Your task to perform on an android device: Show me popular games on the Play Store Image 0: 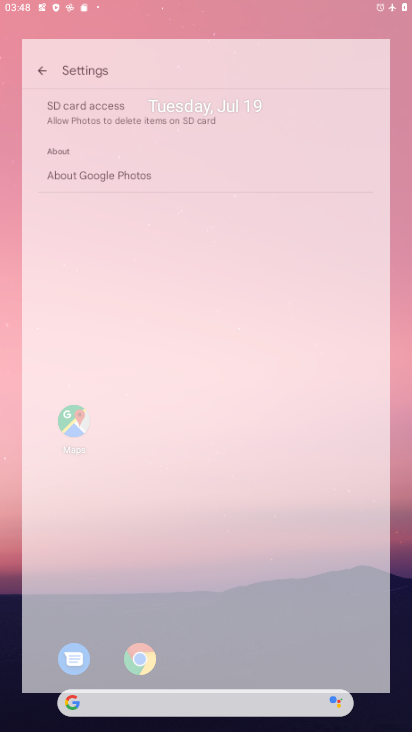
Step 0: press home button
Your task to perform on an android device: Show me popular games on the Play Store Image 1: 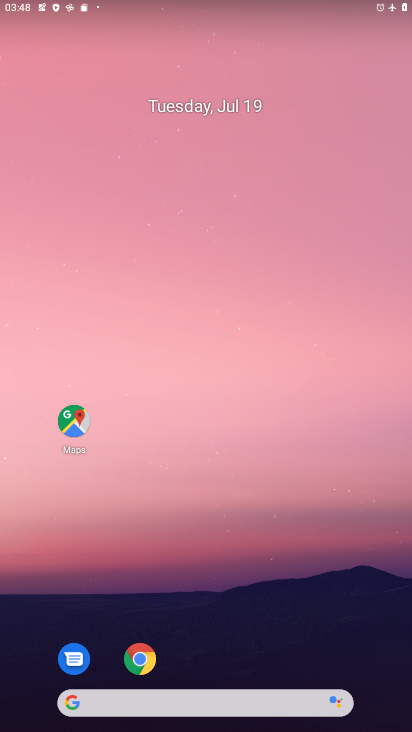
Step 1: drag from (271, 639) to (217, 46)
Your task to perform on an android device: Show me popular games on the Play Store Image 2: 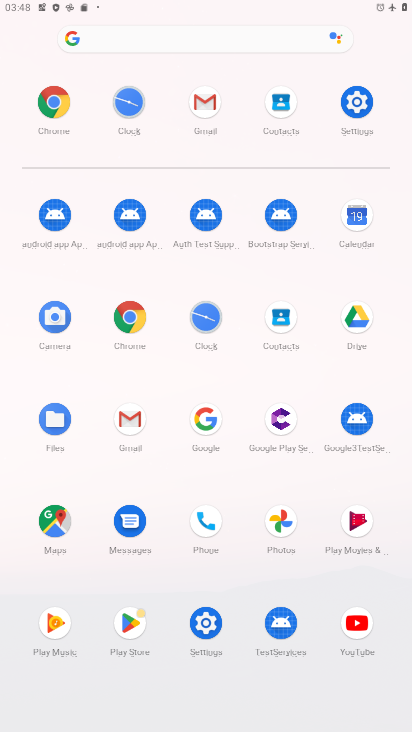
Step 2: click (124, 628)
Your task to perform on an android device: Show me popular games on the Play Store Image 3: 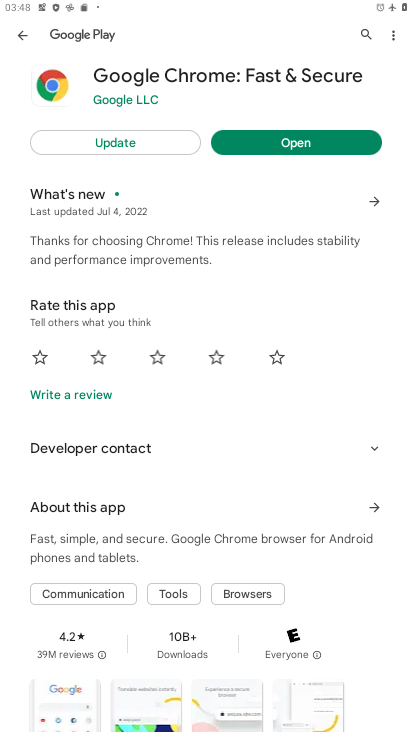
Step 3: click (361, 35)
Your task to perform on an android device: Show me popular games on the Play Store Image 4: 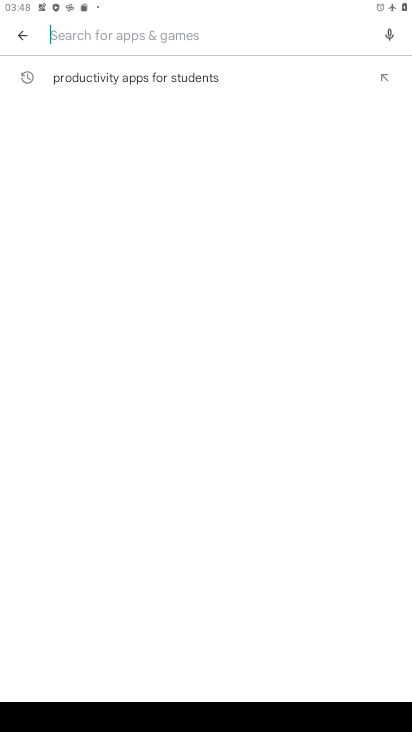
Step 4: type " popular games"
Your task to perform on an android device: Show me popular games on the Play Store Image 5: 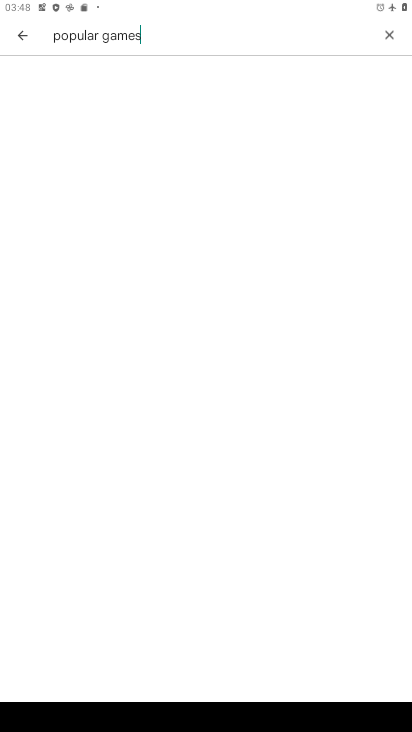
Step 5: type ""
Your task to perform on an android device: Show me popular games on the Play Store Image 6: 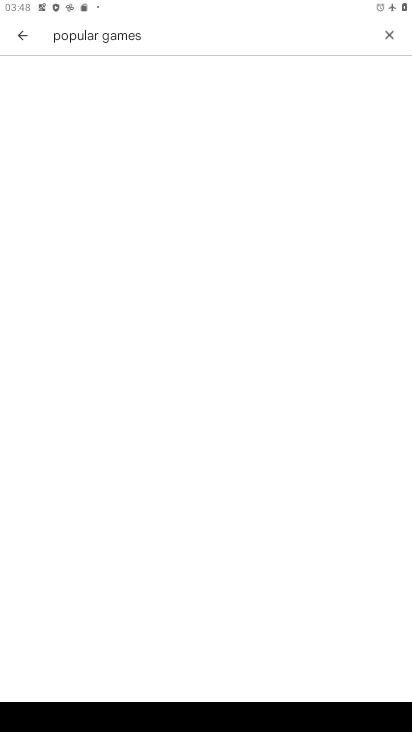
Step 6: click (94, 44)
Your task to perform on an android device: Show me popular games on the Play Store Image 7: 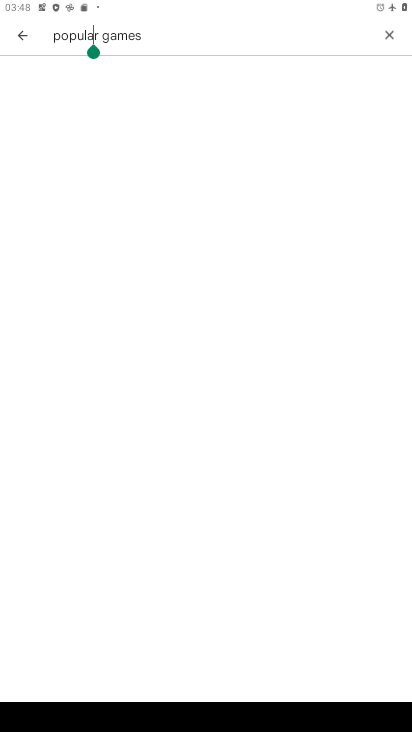
Step 7: click (94, 44)
Your task to perform on an android device: Show me popular games on the Play Store Image 8: 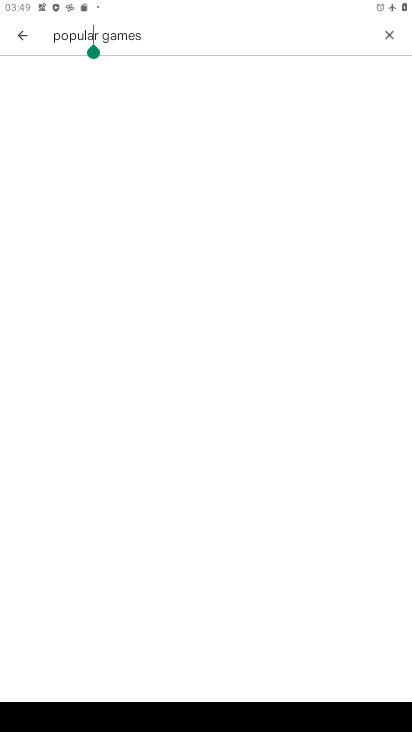
Step 8: click (374, 37)
Your task to perform on an android device: Show me popular games on the Play Store Image 9: 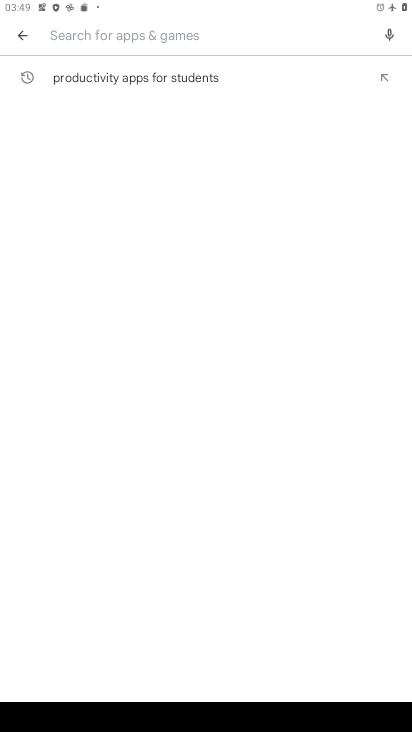
Step 9: click (338, 5)
Your task to perform on an android device: Show me popular games on the Play Store Image 10: 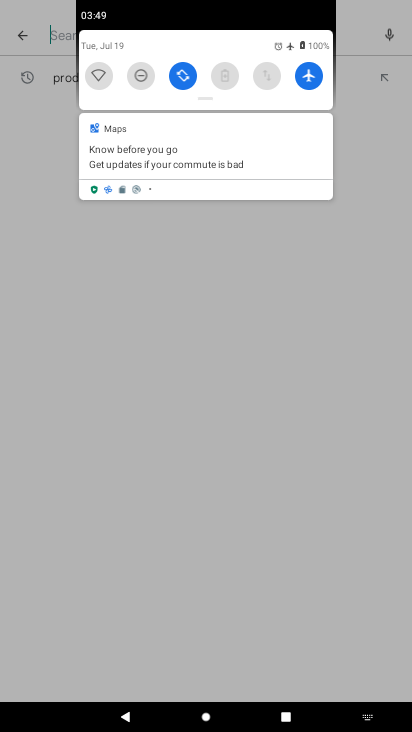
Step 10: drag from (338, 4) to (346, 253)
Your task to perform on an android device: Show me popular games on the Play Store Image 11: 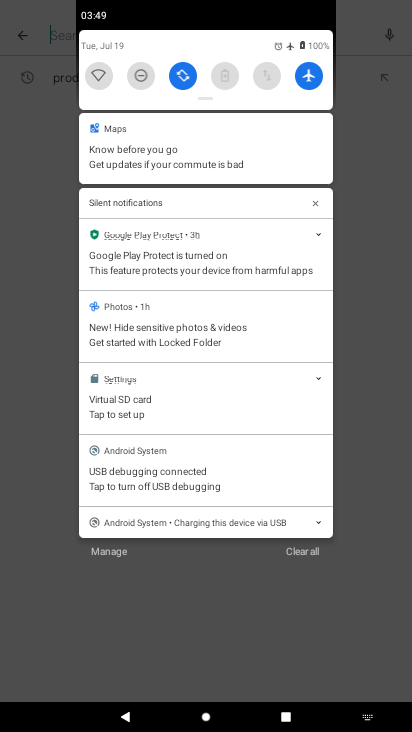
Step 11: click (310, 91)
Your task to perform on an android device: Show me popular games on the Play Store Image 12: 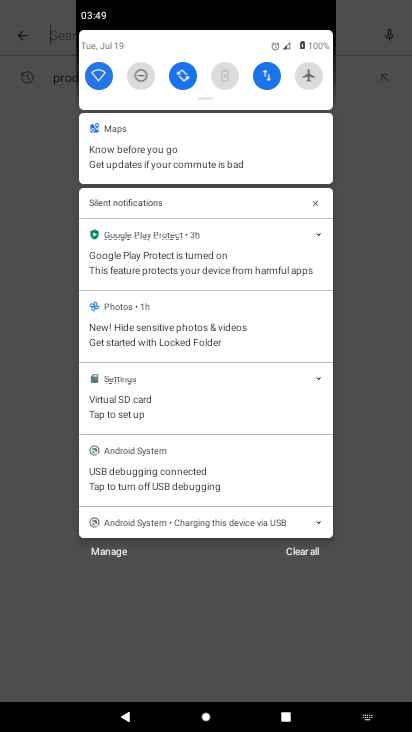
Step 12: drag from (307, 652) to (262, 18)
Your task to perform on an android device: Show me popular games on the Play Store Image 13: 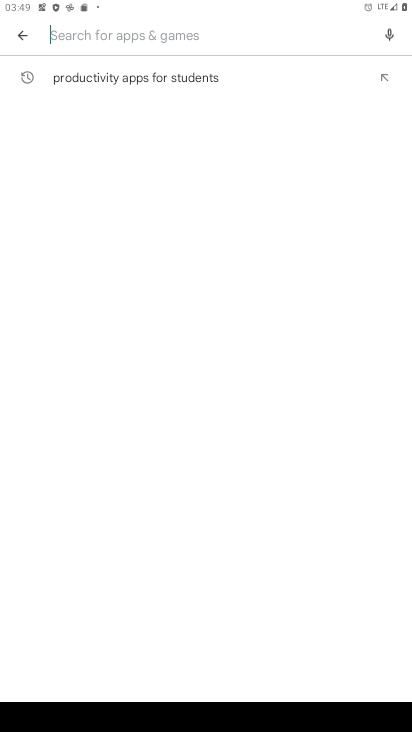
Step 13: type "popular games"
Your task to perform on an android device: Show me popular games on the Play Store Image 14: 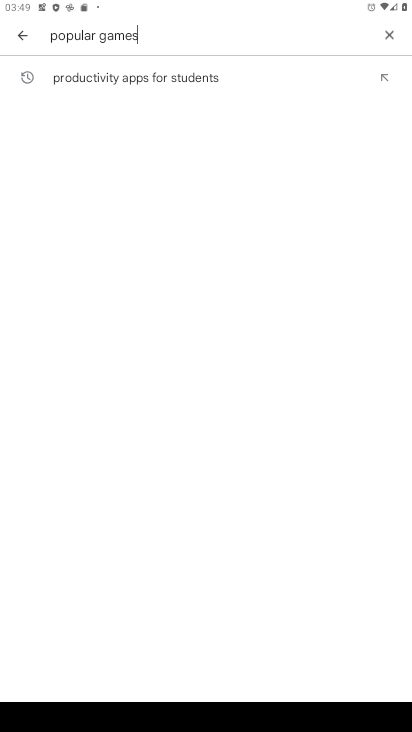
Step 14: type ""
Your task to perform on an android device: Show me popular games on the Play Store Image 15: 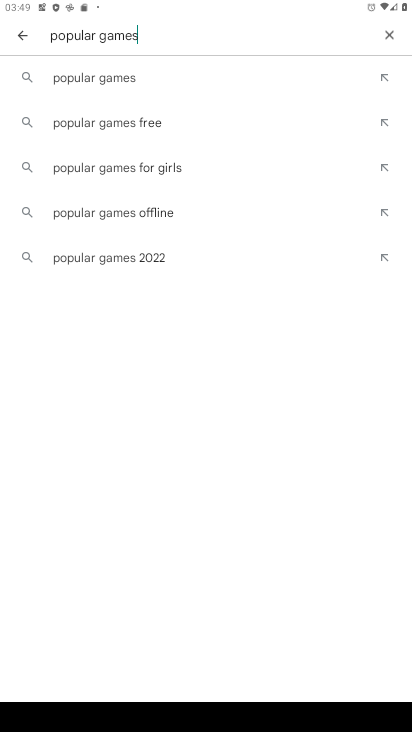
Step 15: click (64, 87)
Your task to perform on an android device: Show me popular games on the Play Store Image 16: 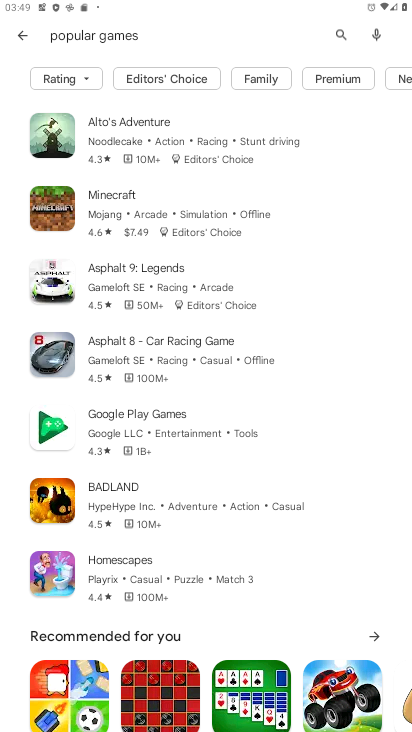
Step 16: task complete